Your task to perform on an android device: Add "logitech g pro" to the cart on bestbuy.com Image 0: 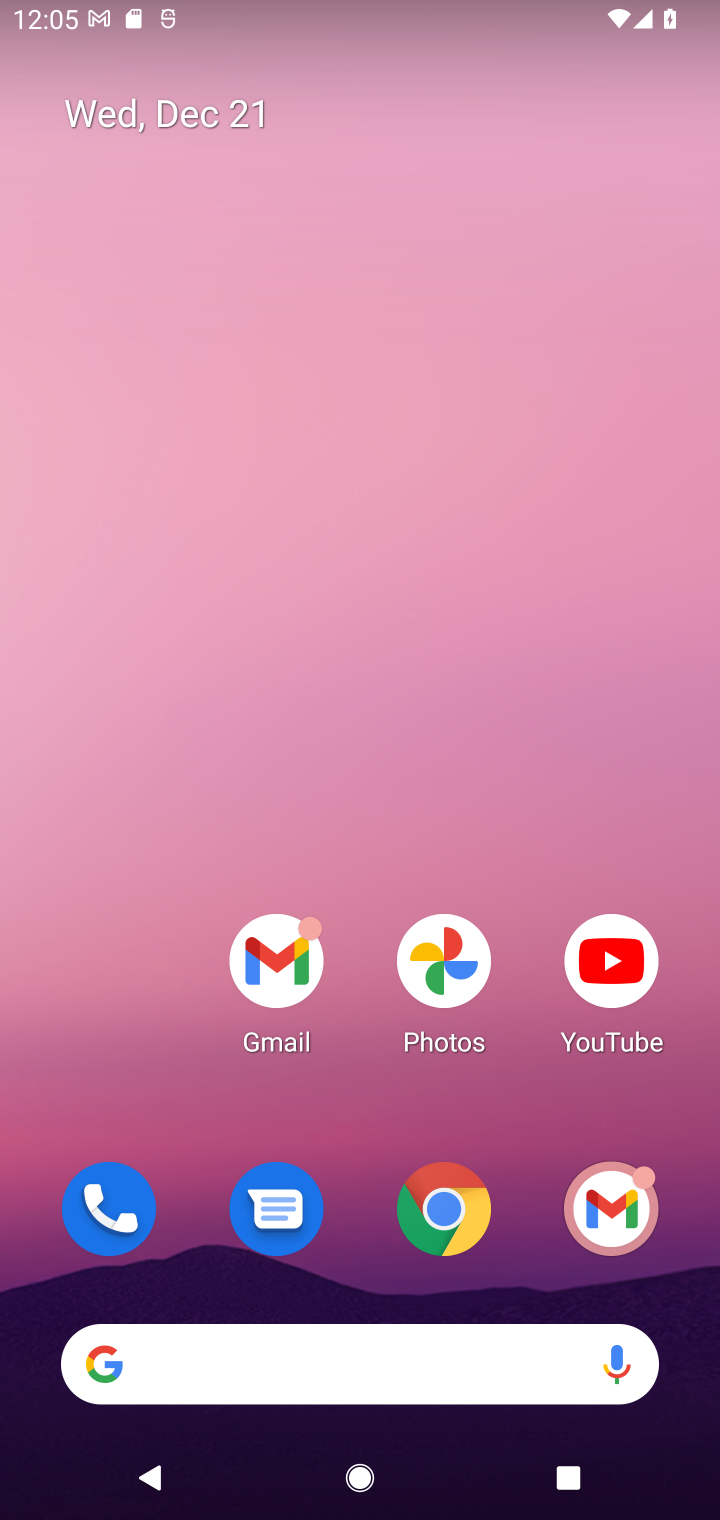
Step 0: click (445, 1213)
Your task to perform on an android device: Add "logitech g pro" to the cart on bestbuy.com Image 1: 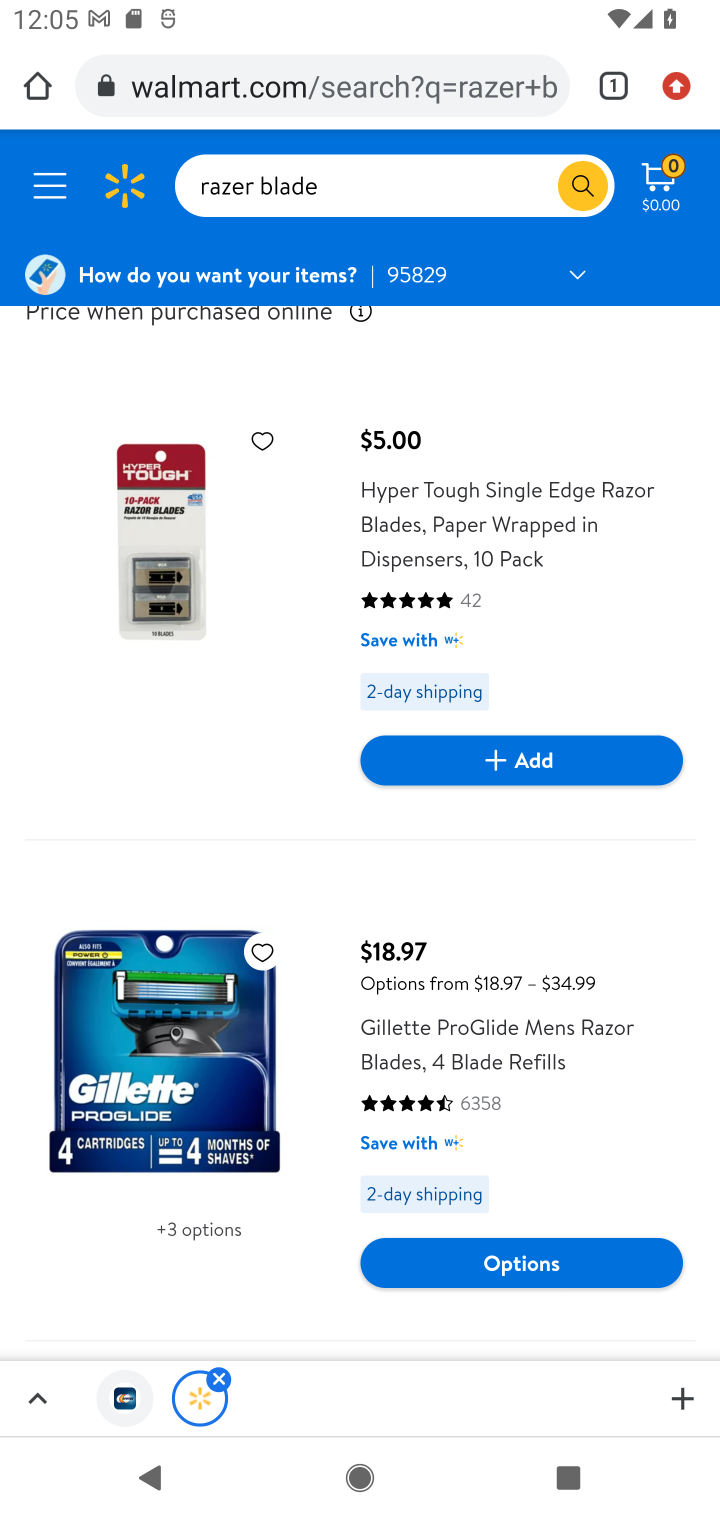
Step 1: click (204, 86)
Your task to perform on an android device: Add "logitech g pro" to the cart on bestbuy.com Image 2: 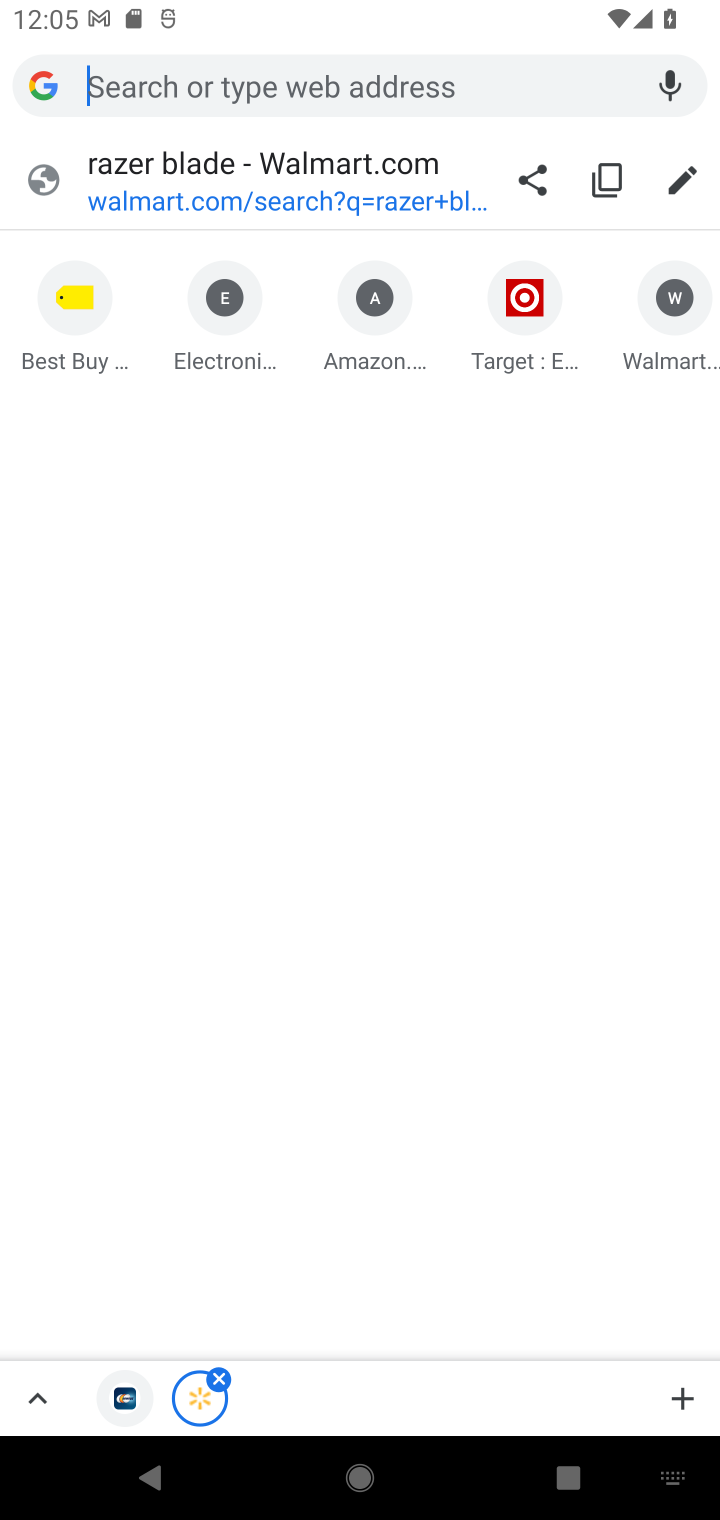
Step 2: click (33, 328)
Your task to perform on an android device: Add "logitech g pro" to the cart on bestbuy.com Image 3: 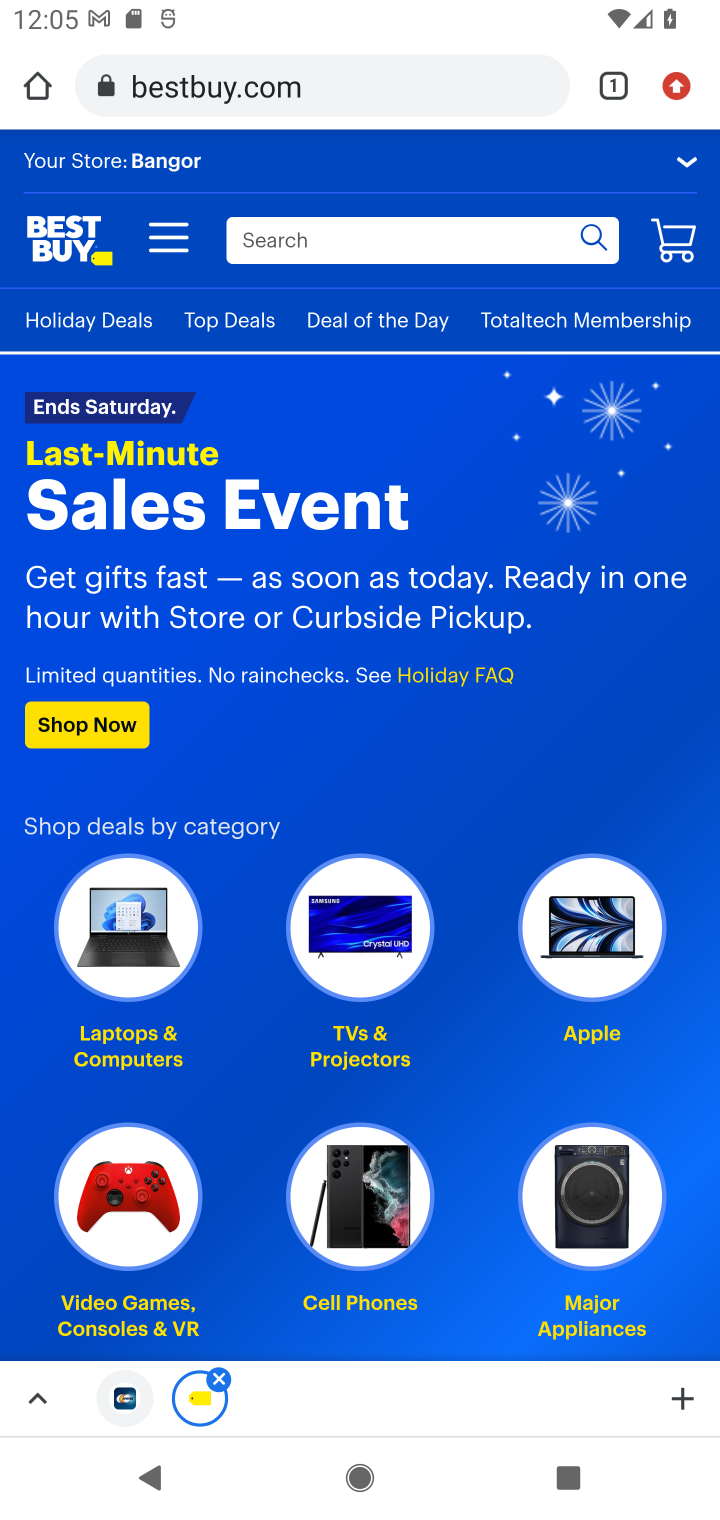
Step 3: click (301, 236)
Your task to perform on an android device: Add "logitech g pro" to the cart on bestbuy.com Image 4: 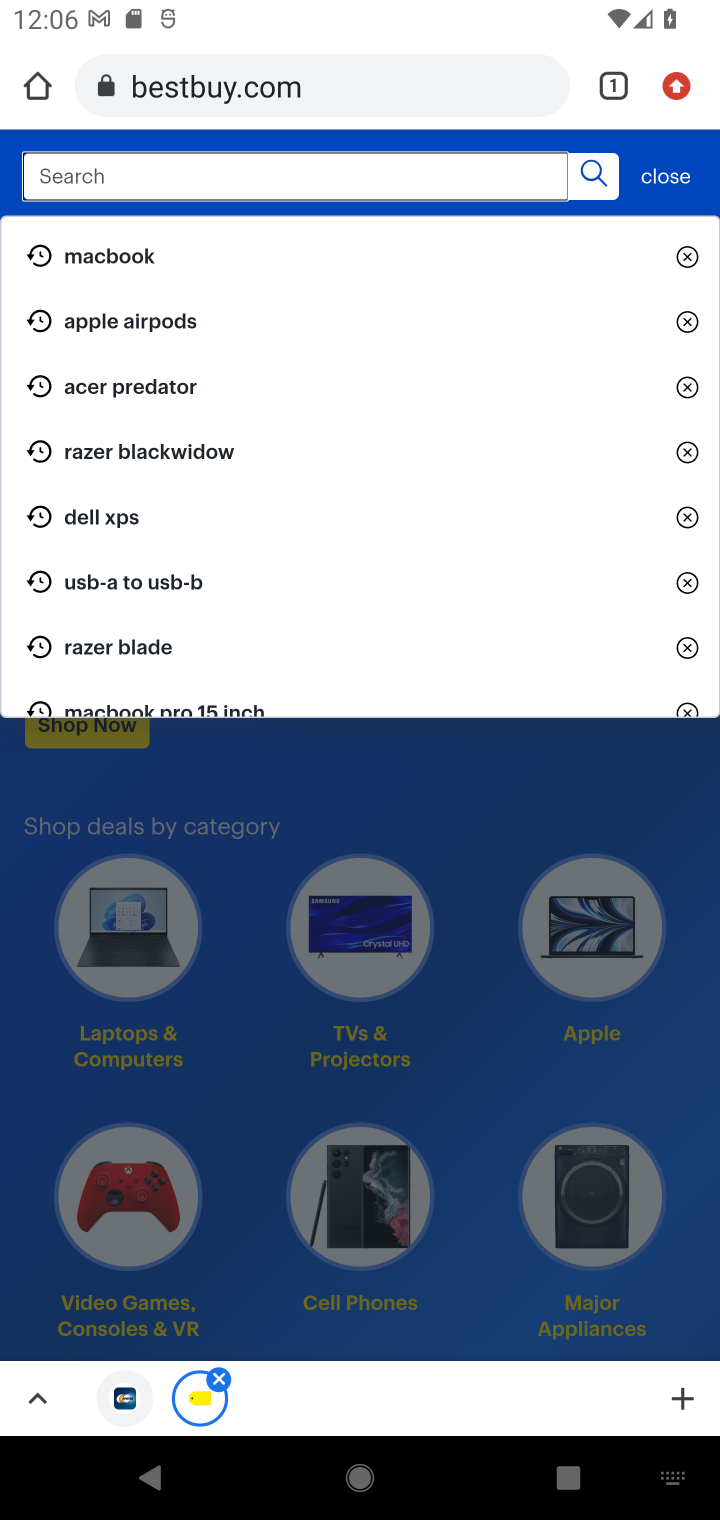
Step 4: type "logitech g pro"
Your task to perform on an android device: Add "logitech g pro" to the cart on bestbuy.com Image 5: 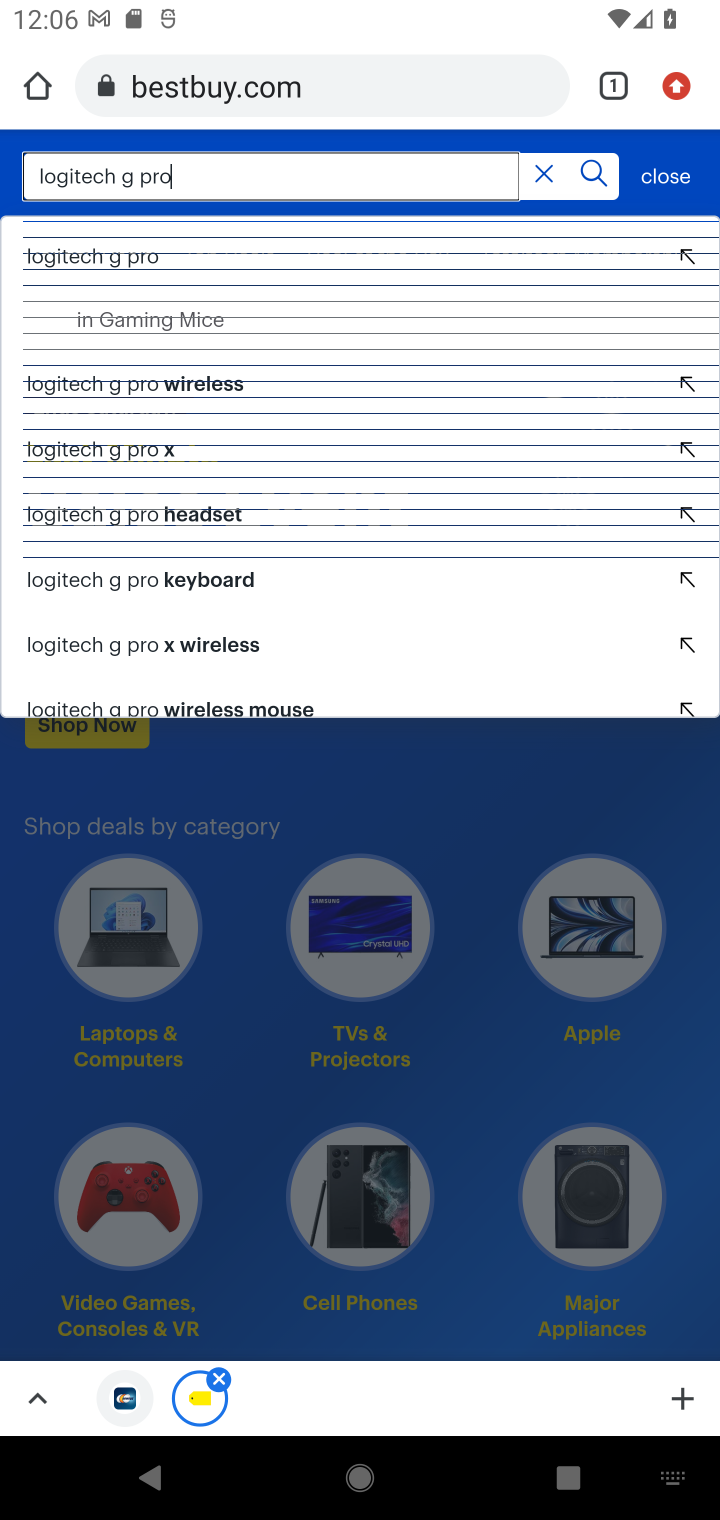
Step 5: click (107, 256)
Your task to perform on an android device: Add "logitech g pro" to the cart on bestbuy.com Image 6: 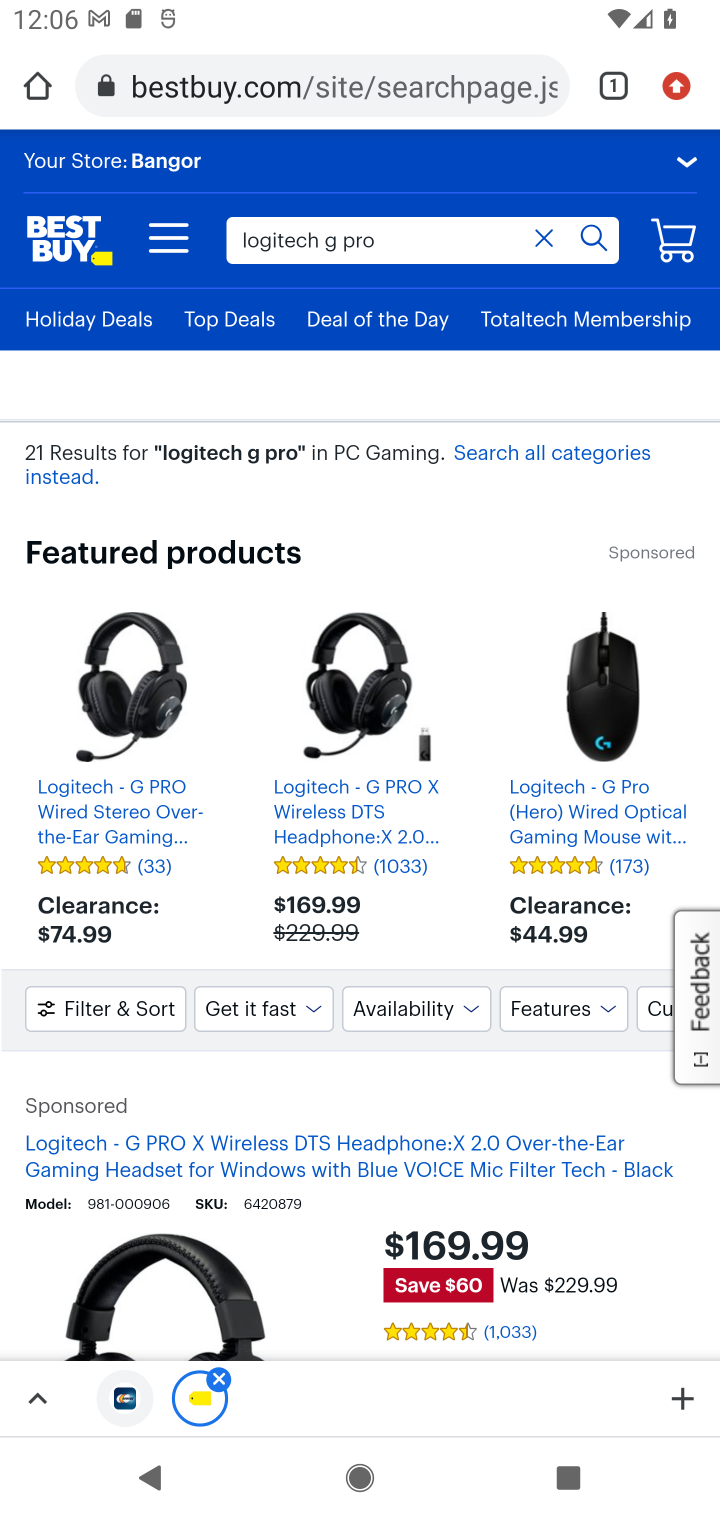
Step 6: drag from (290, 1137) to (304, 433)
Your task to perform on an android device: Add "logitech g pro" to the cart on bestbuy.com Image 7: 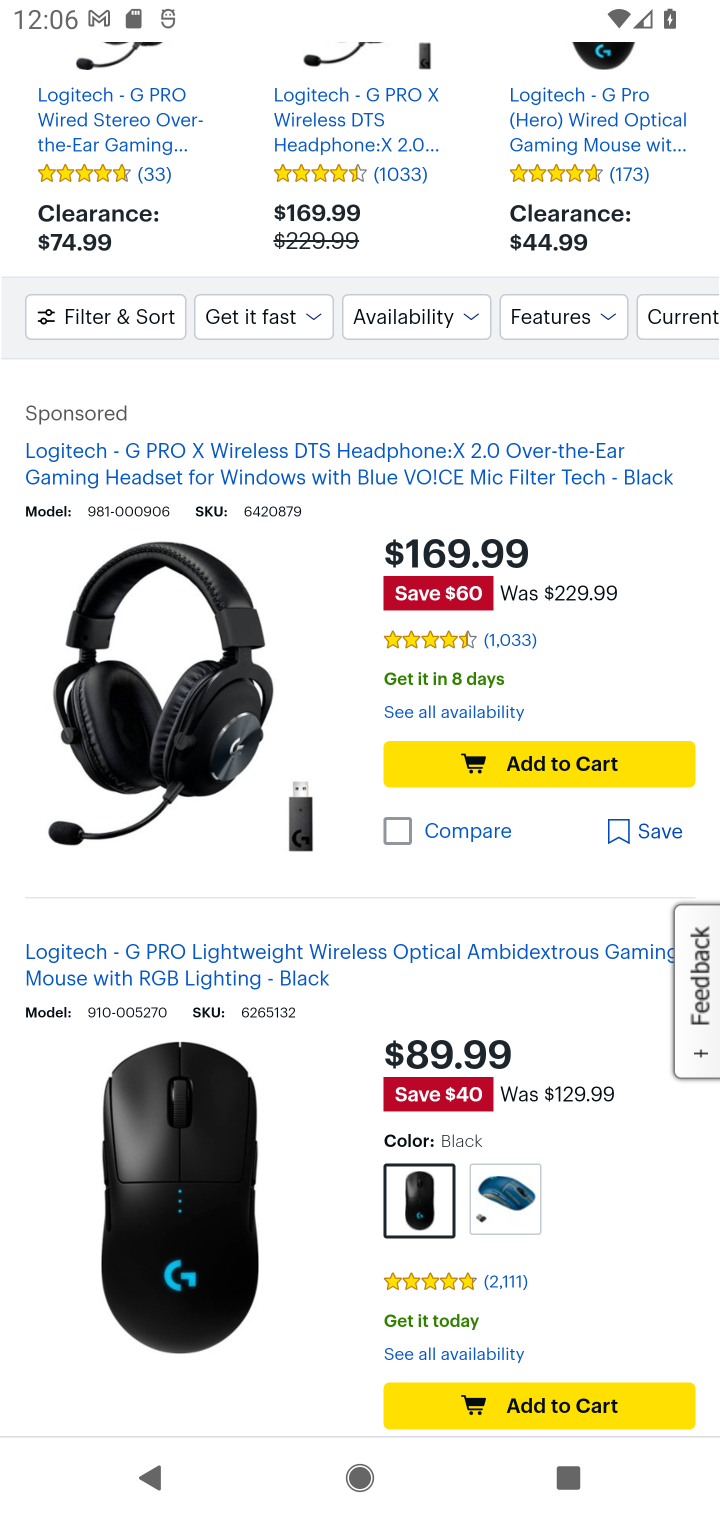
Step 7: click (516, 770)
Your task to perform on an android device: Add "logitech g pro" to the cart on bestbuy.com Image 8: 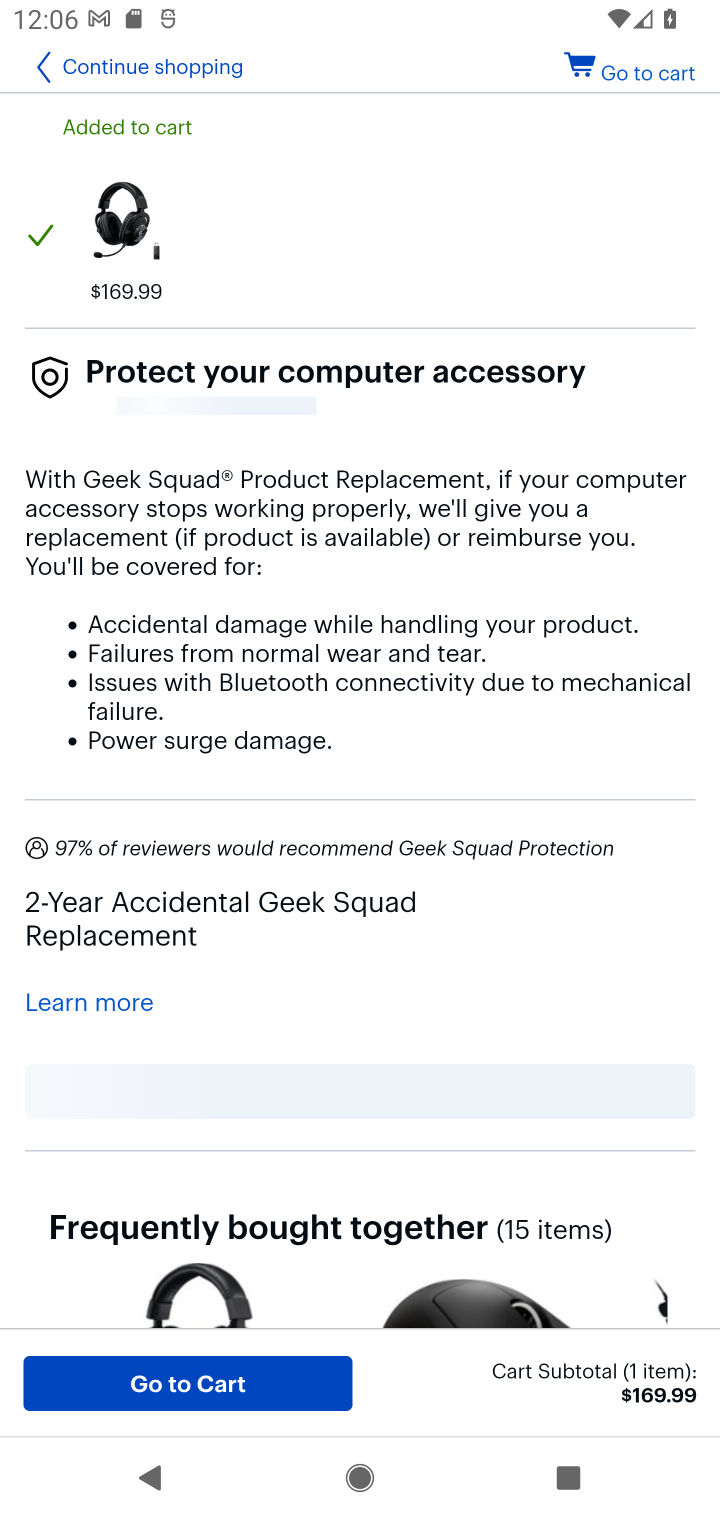
Step 8: task complete